Your task to perform on an android device: open app "Google Maps" Image 0: 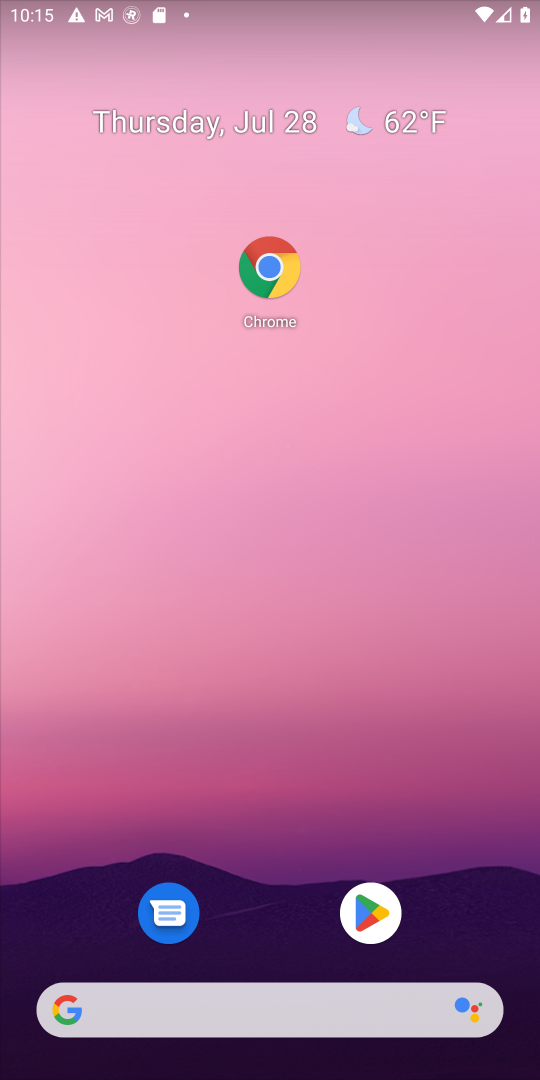
Step 0: press home button
Your task to perform on an android device: open app "Google Maps" Image 1: 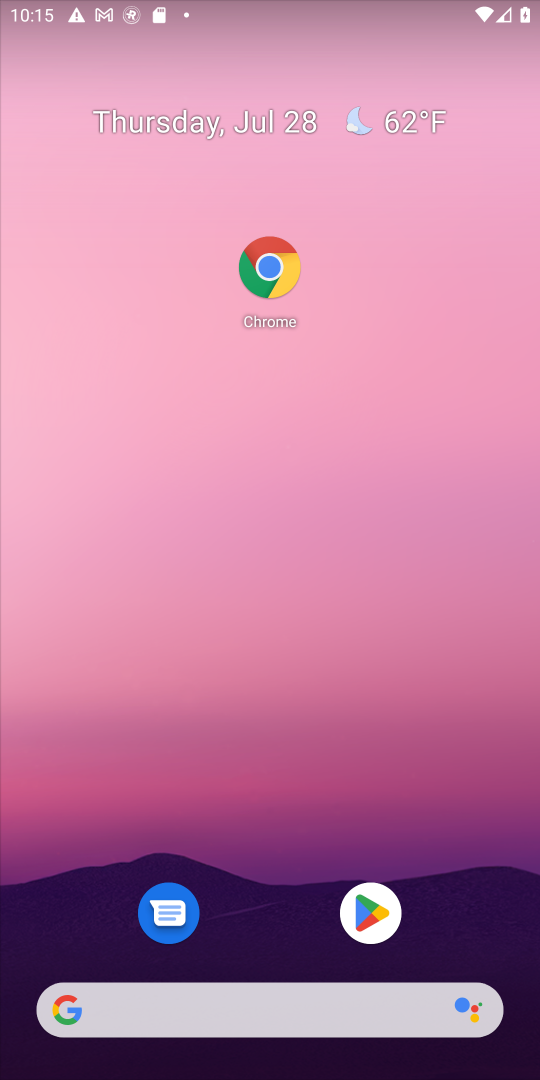
Step 1: click (379, 932)
Your task to perform on an android device: open app "Google Maps" Image 2: 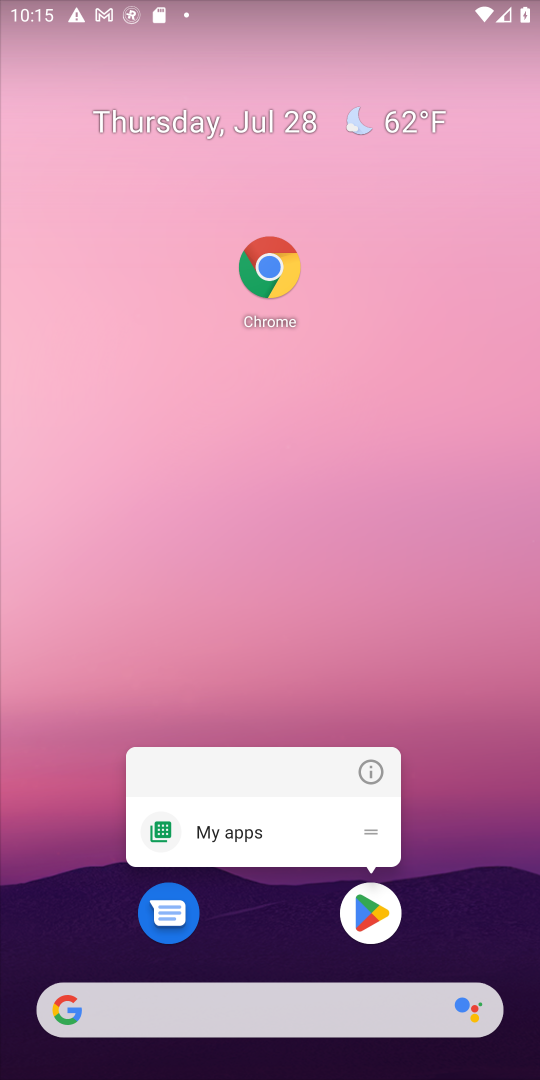
Step 2: click (375, 928)
Your task to perform on an android device: open app "Google Maps" Image 3: 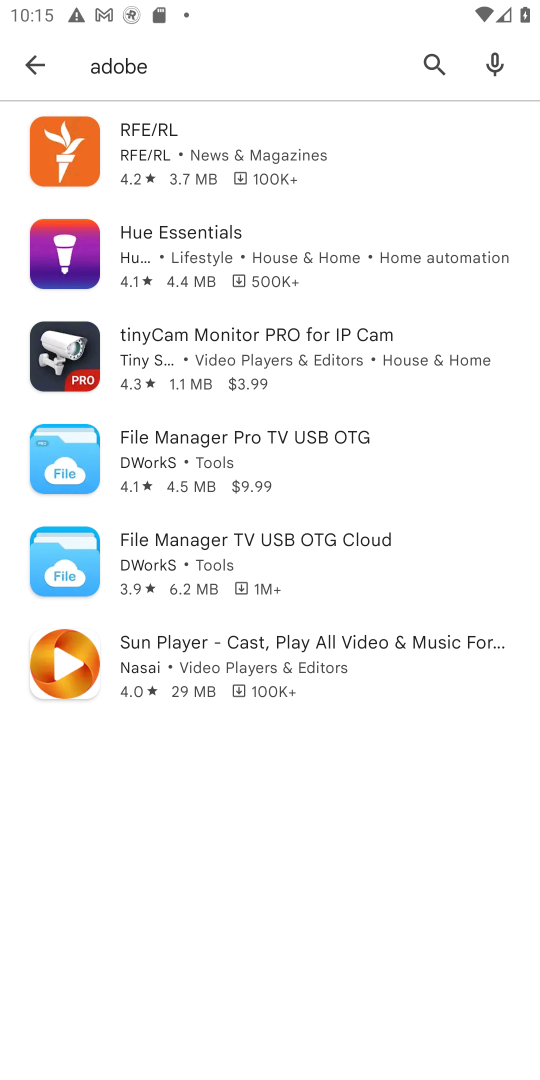
Step 3: click (430, 47)
Your task to perform on an android device: open app "Google Maps" Image 4: 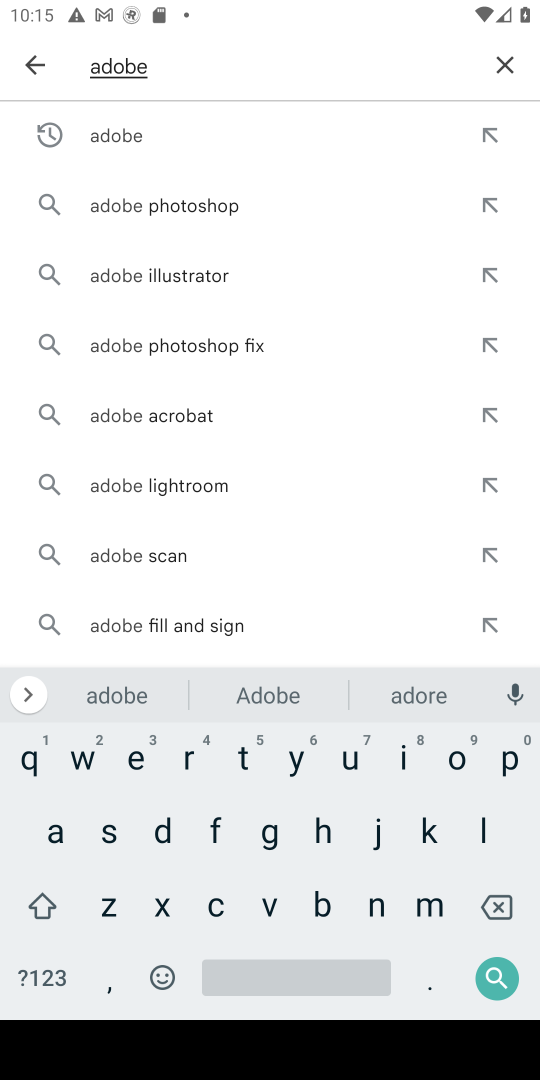
Step 4: click (510, 59)
Your task to perform on an android device: open app "Google Maps" Image 5: 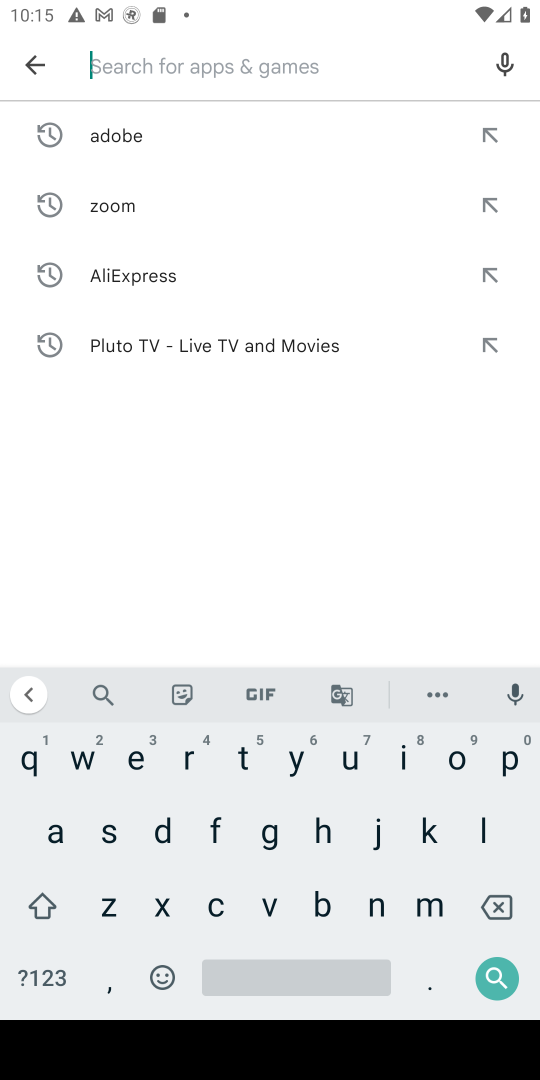
Step 5: click (434, 896)
Your task to perform on an android device: open app "Google Maps" Image 6: 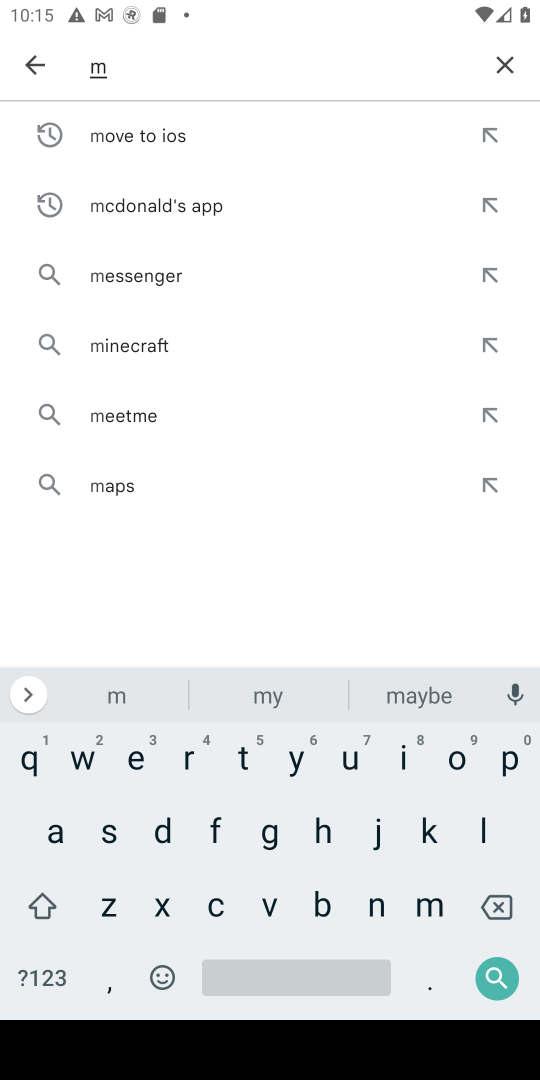
Step 6: click (46, 835)
Your task to perform on an android device: open app "Google Maps" Image 7: 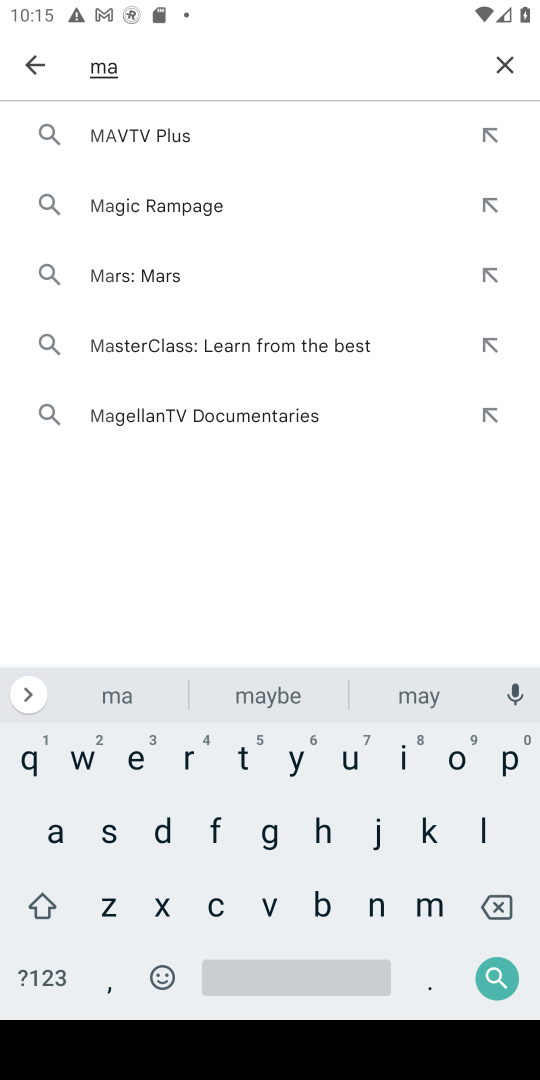
Step 7: click (510, 757)
Your task to perform on an android device: open app "Google Maps" Image 8: 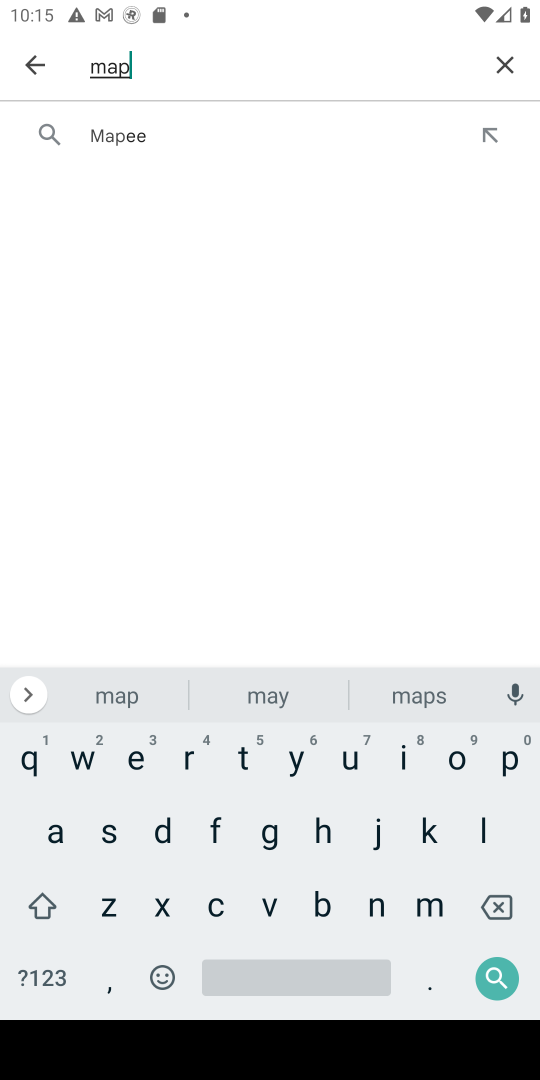
Step 8: click (494, 975)
Your task to perform on an android device: open app "Google Maps" Image 9: 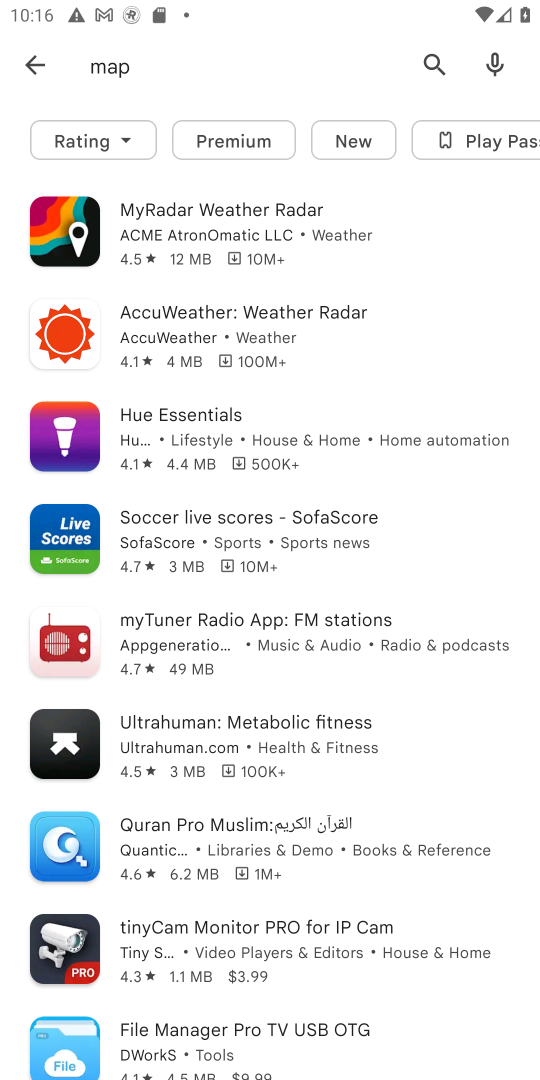
Step 9: task complete